Your task to perform on an android device: change the clock style Image 0: 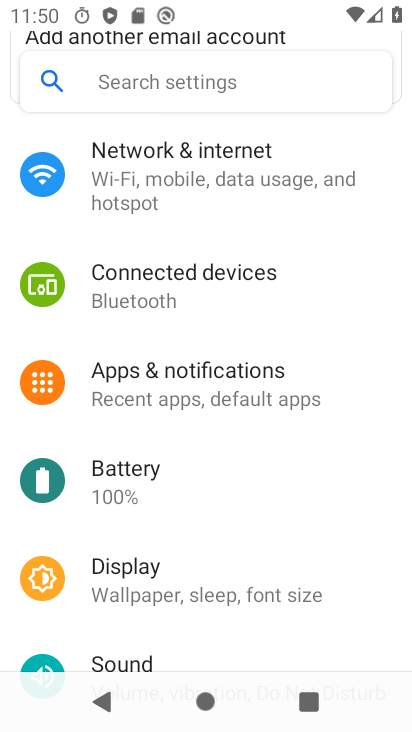
Step 0: press home button
Your task to perform on an android device: change the clock style Image 1: 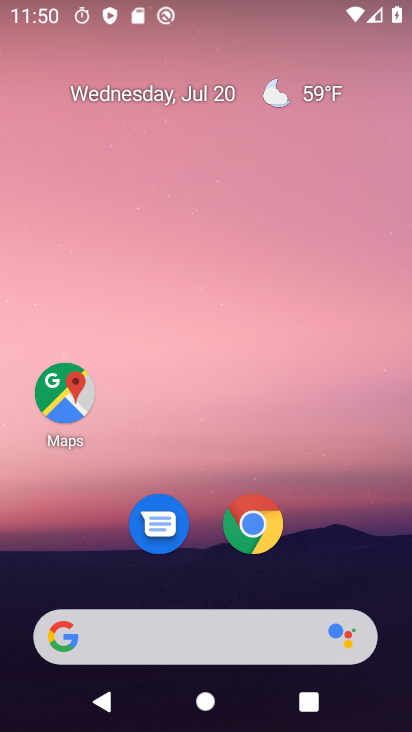
Step 1: drag from (211, 615) to (302, 0)
Your task to perform on an android device: change the clock style Image 2: 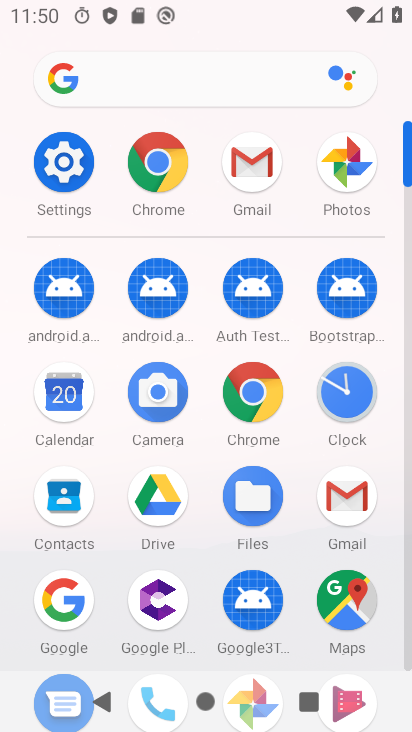
Step 2: click (347, 395)
Your task to perform on an android device: change the clock style Image 3: 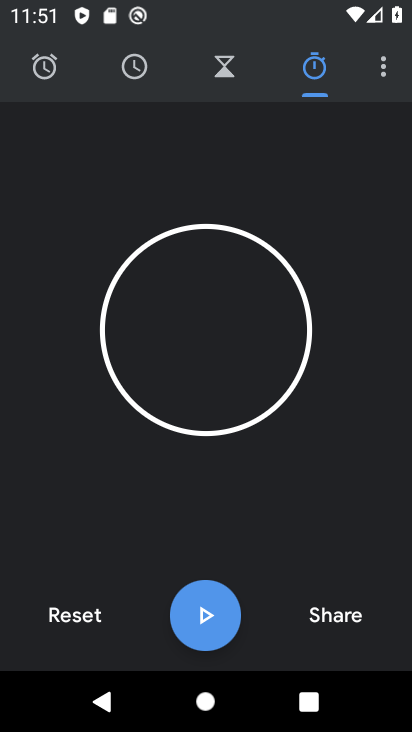
Step 3: click (381, 72)
Your task to perform on an android device: change the clock style Image 4: 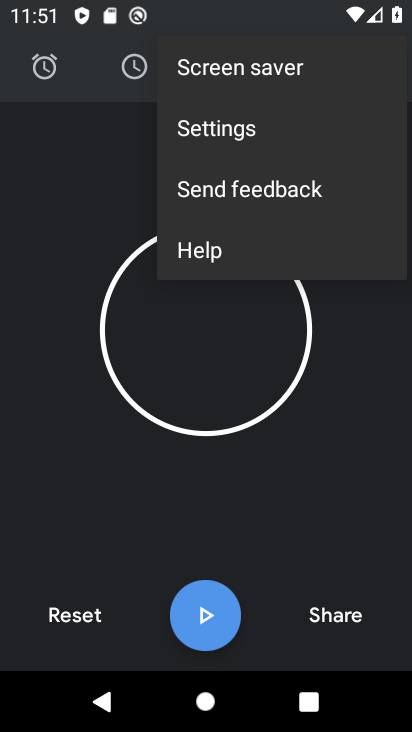
Step 4: click (253, 136)
Your task to perform on an android device: change the clock style Image 5: 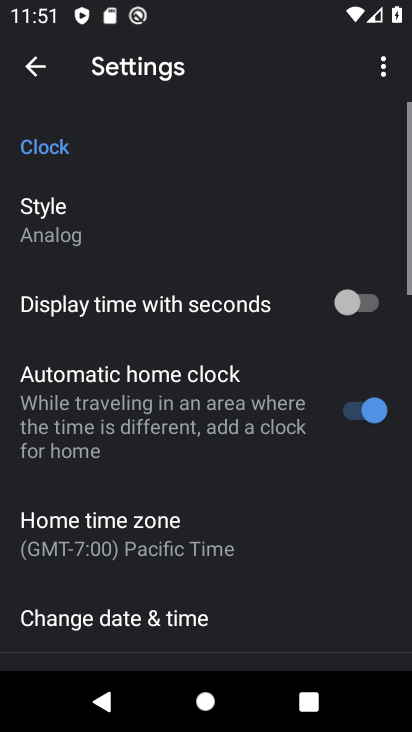
Step 5: click (62, 232)
Your task to perform on an android device: change the clock style Image 6: 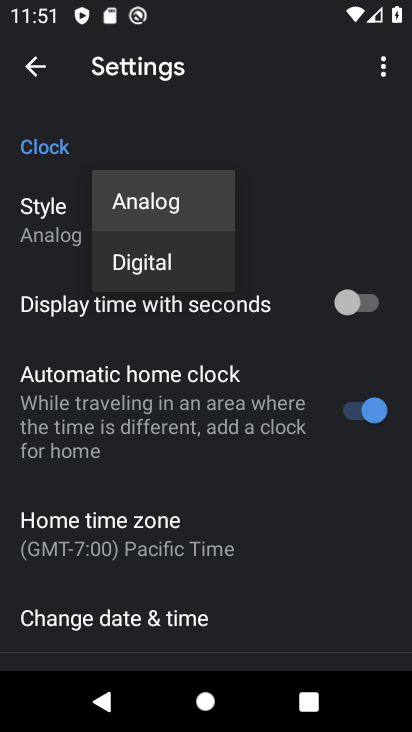
Step 6: click (148, 254)
Your task to perform on an android device: change the clock style Image 7: 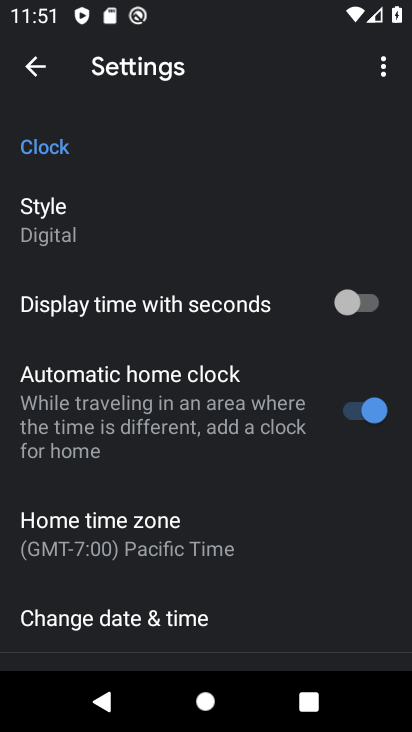
Step 7: task complete